Your task to perform on an android device: Search for seafood restaurants on Google Maps Image 0: 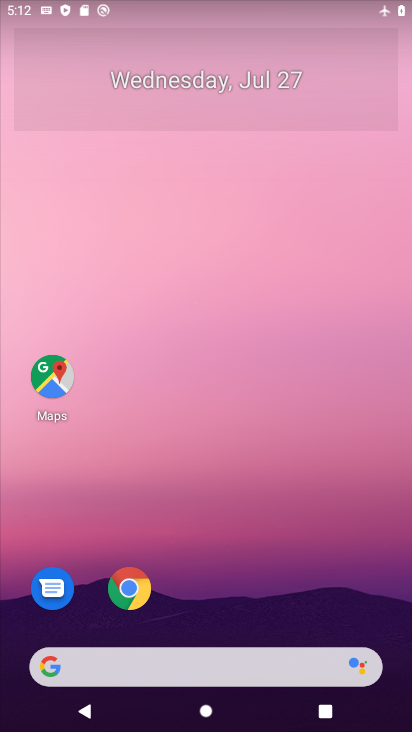
Step 0: drag from (324, 526) to (357, 8)
Your task to perform on an android device: Search for seafood restaurants on Google Maps Image 1: 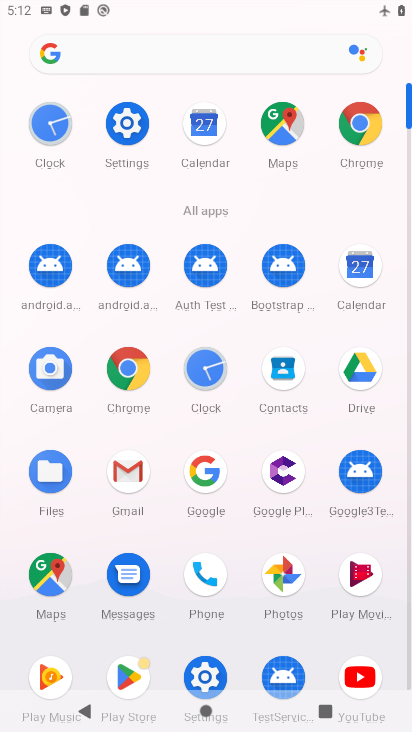
Step 1: click (58, 583)
Your task to perform on an android device: Search for seafood restaurants on Google Maps Image 2: 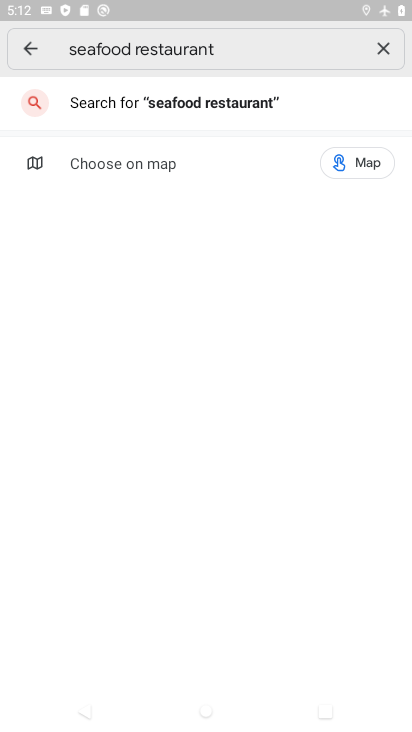
Step 2: task complete